Your task to perform on an android device: turn off improve location accuracy Image 0: 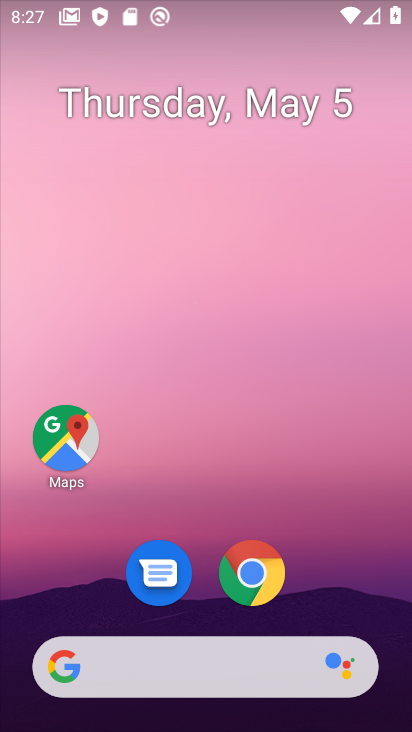
Step 0: drag from (206, 514) to (219, 32)
Your task to perform on an android device: turn off improve location accuracy Image 1: 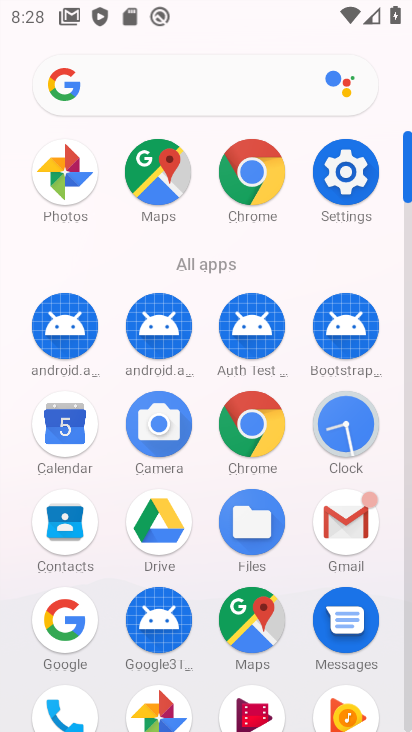
Step 1: click (347, 185)
Your task to perform on an android device: turn off improve location accuracy Image 2: 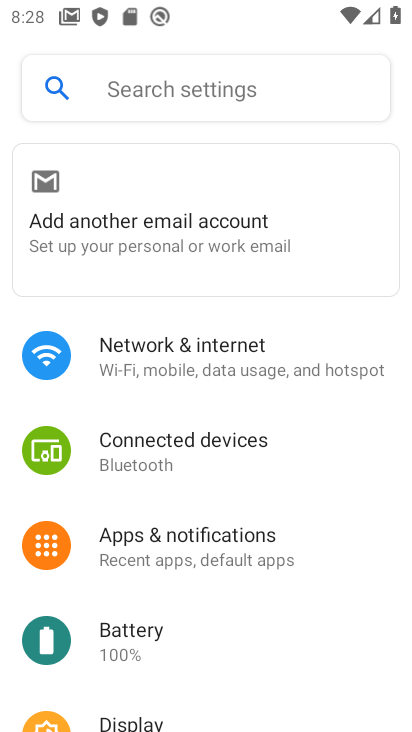
Step 2: drag from (243, 642) to (267, 345)
Your task to perform on an android device: turn off improve location accuracy Image 3: 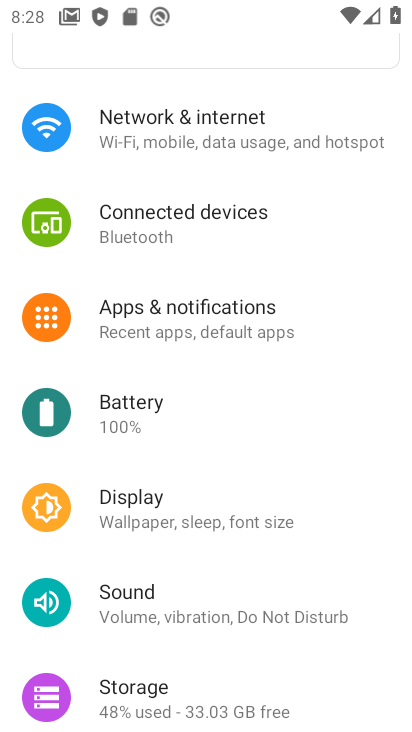
Step 3: drag from (214, 651) to (266, 203)
Your task to perform on an android device: turn off improve location accuracy Image 4: 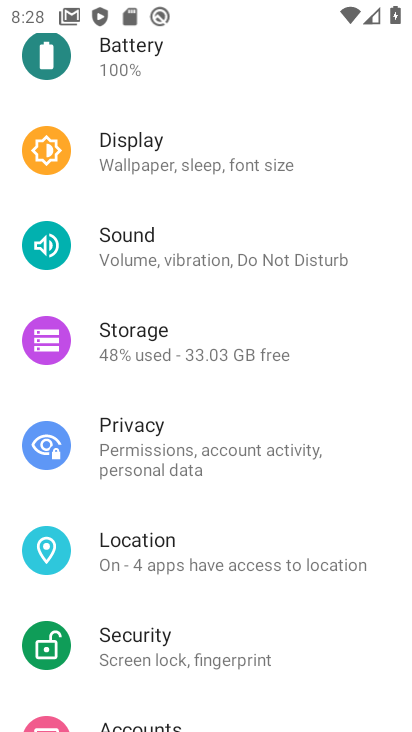
Step 4: click (183, 549)
Your task to perform on an android device: turn off improve location accuracy Image 5: 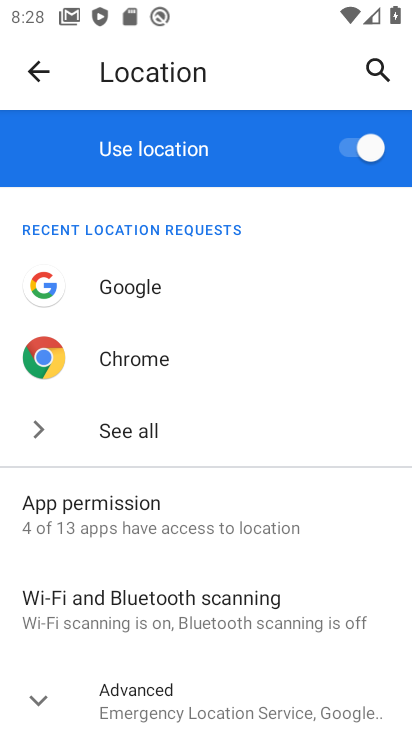
Step 5: drag from (201, 648) to (257, 276)
Your task to perform on an android device: turn off improve location accuracy Image 6: 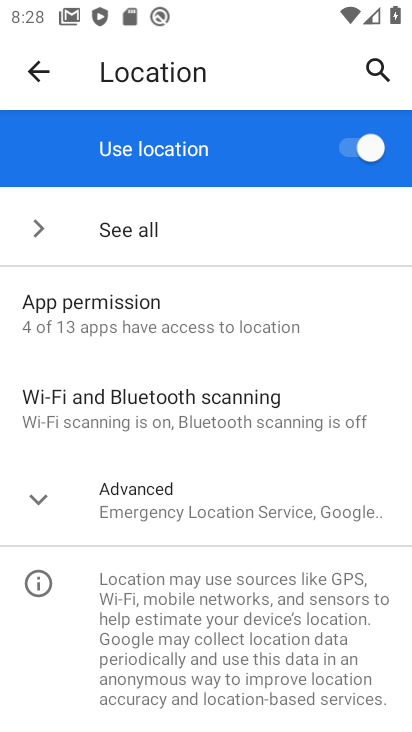
Step 6: click (194, 496)
Your task to perform on an android device: turn off improve location accuracy Image 7: 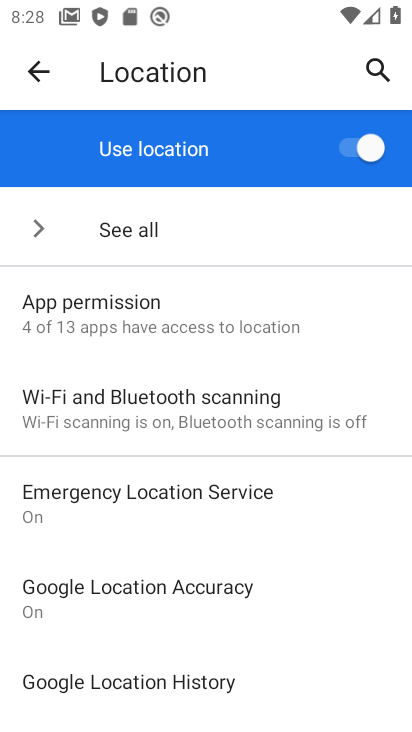
Step 7: click (182, 594)
Your task to perform on an android device: turn off improve location accuracy Image 8: 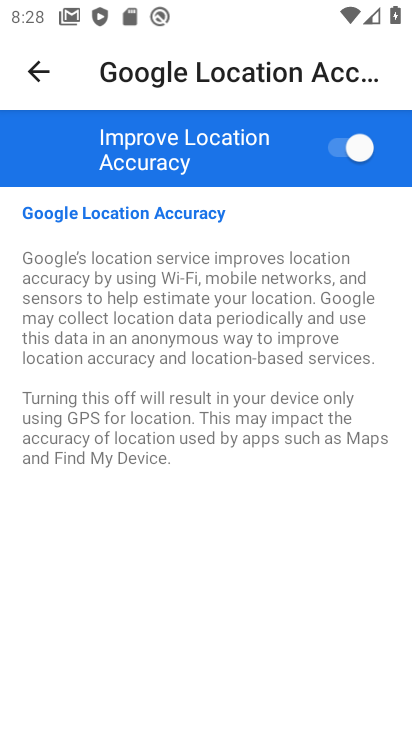
Step 8: click (343, 147)
Your task to perform on an android device: turn off improve location accuracy Image 9: 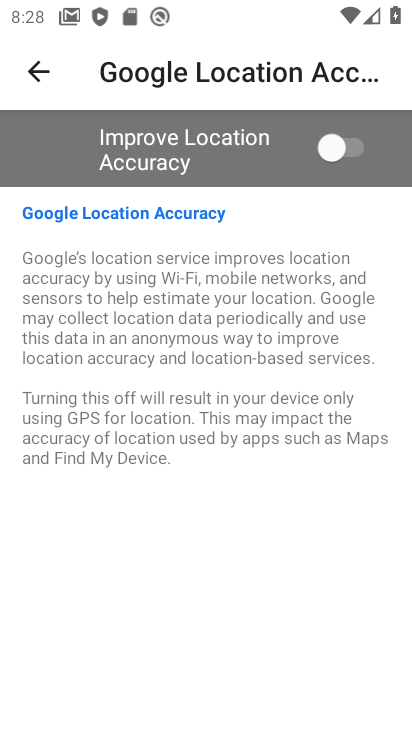
Step 9: task complete